Your task to perform on an android device: turn on translation in the chrome app Image 0: 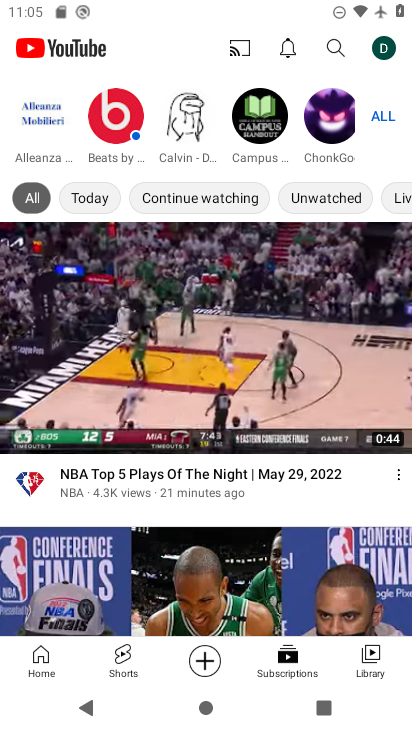
Step 0: press home button
Your task to perform on an android device: turn on translation in the chrome app Image 1: 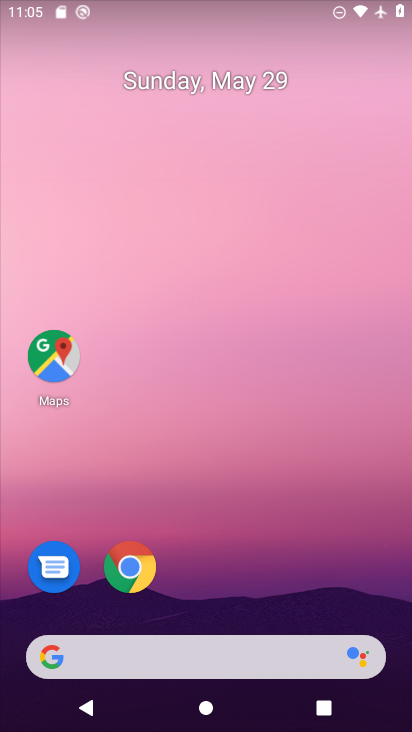
Step 1: click (127, 574)
Your task to perform on an android device: turn on translation in the chrome app Image 2: 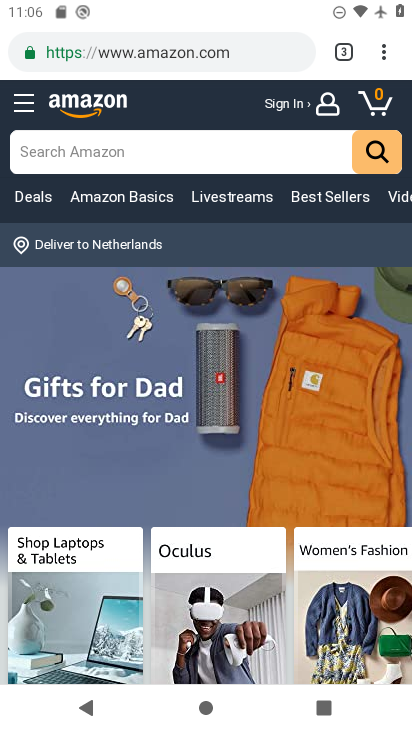
Step 2: click (387, 59)
Your task to perform on an android device: turn on translation in the chrome app Image 3: 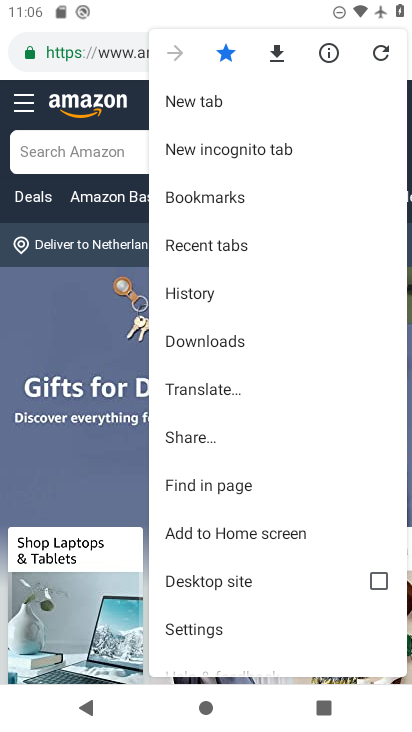
Step 3: click (201, 635)
Your task to perform on an android device: turn on translation in the chrome app Image 4: 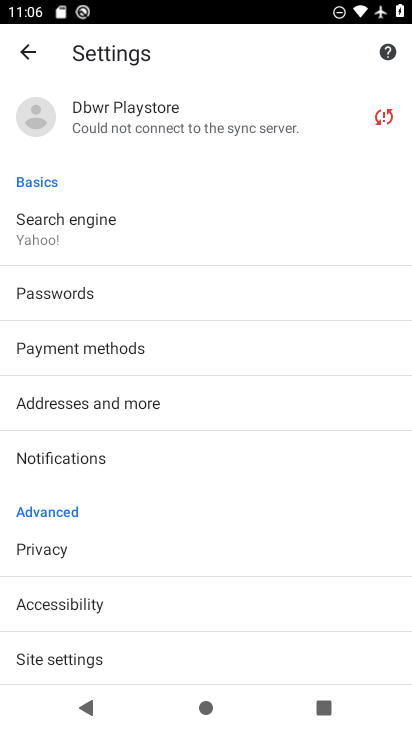
Step 4: drag from (181, 612) to (192, 233)
Your task to perform on an android device: turn on translation in the chrome app Image 5: 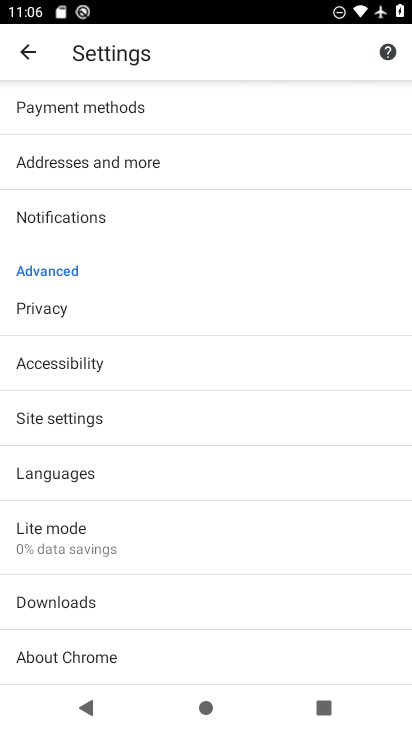
Step 5: click (51, 467)
Your task to perform on an android device: turn on translation in the chrome app Image 6: 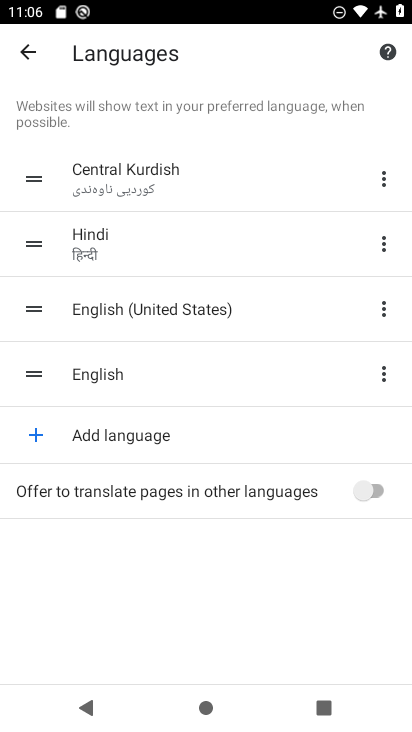
Step 6: click (374, 487)
Your task to perform on an android device: turn on translation in the chrome app Image 7: 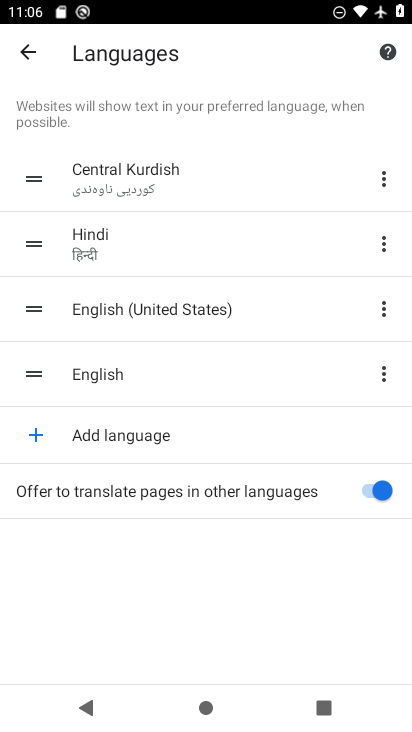
Step 7: task complete